Your task to perform on an android device: Check the weather Image 0: 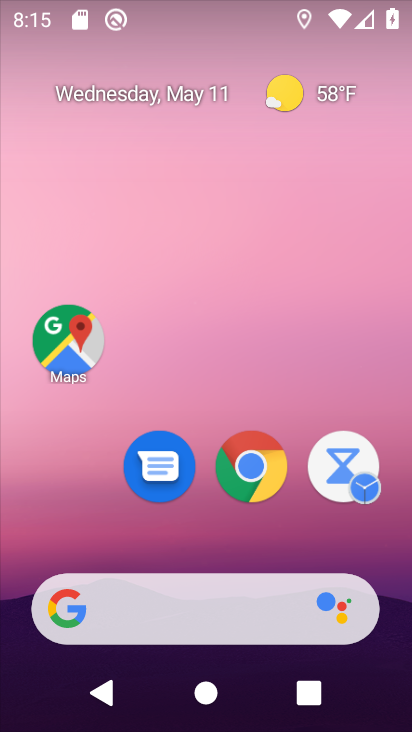
Step 0: drag from (245, 542) to (245, 21)
Your task to perform on an android device: Check the weather Image 1: 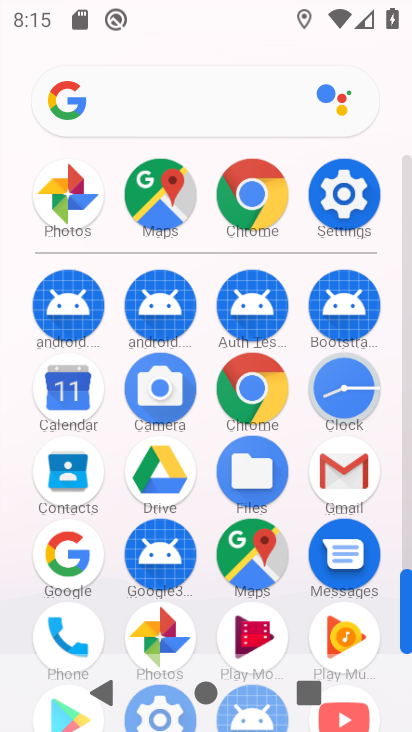
Step 1: click (188, 89)
Your task to perform on an android device: Check the weather Image 2: 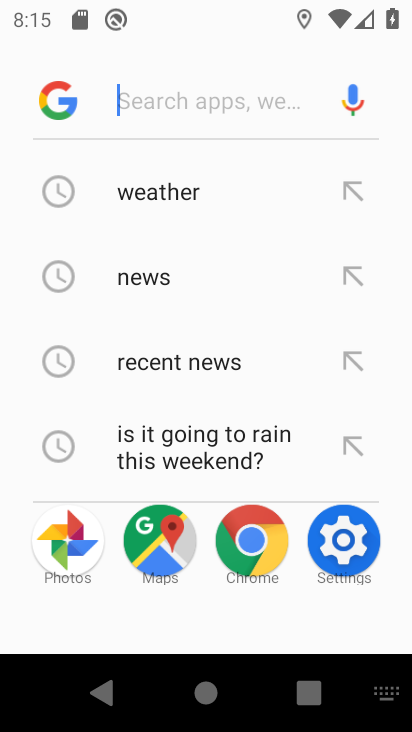
Step 2: type "weather"
Your task to perform on an android device: Check the weather Image 3: 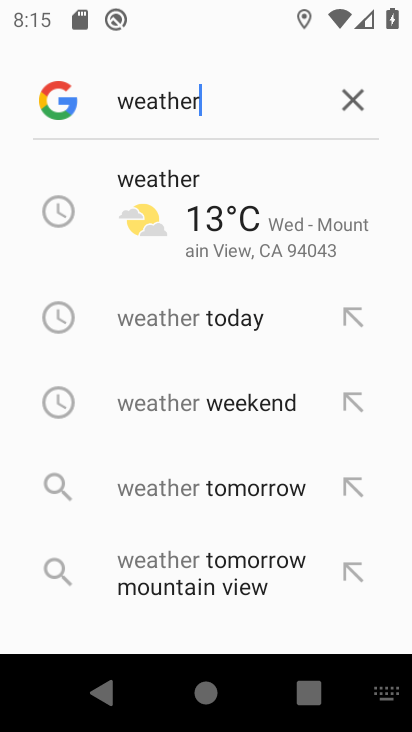
Step 3: click (241, 237)
Your task to perform on an android device: Check the weather Image 4: 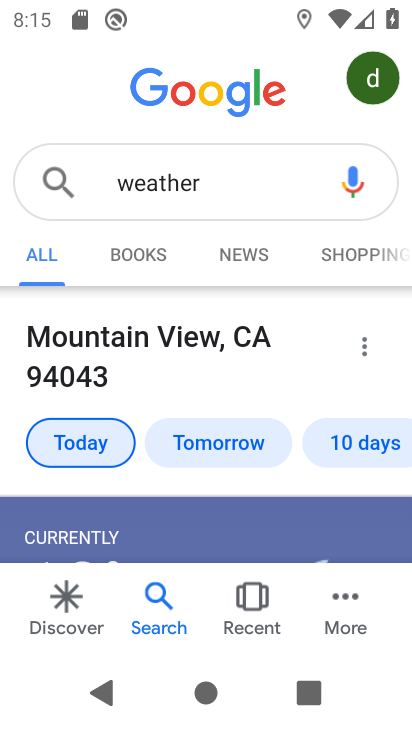
Step 4: task complete